Your task to perform on an android device: turn off airplane mode Image 0: 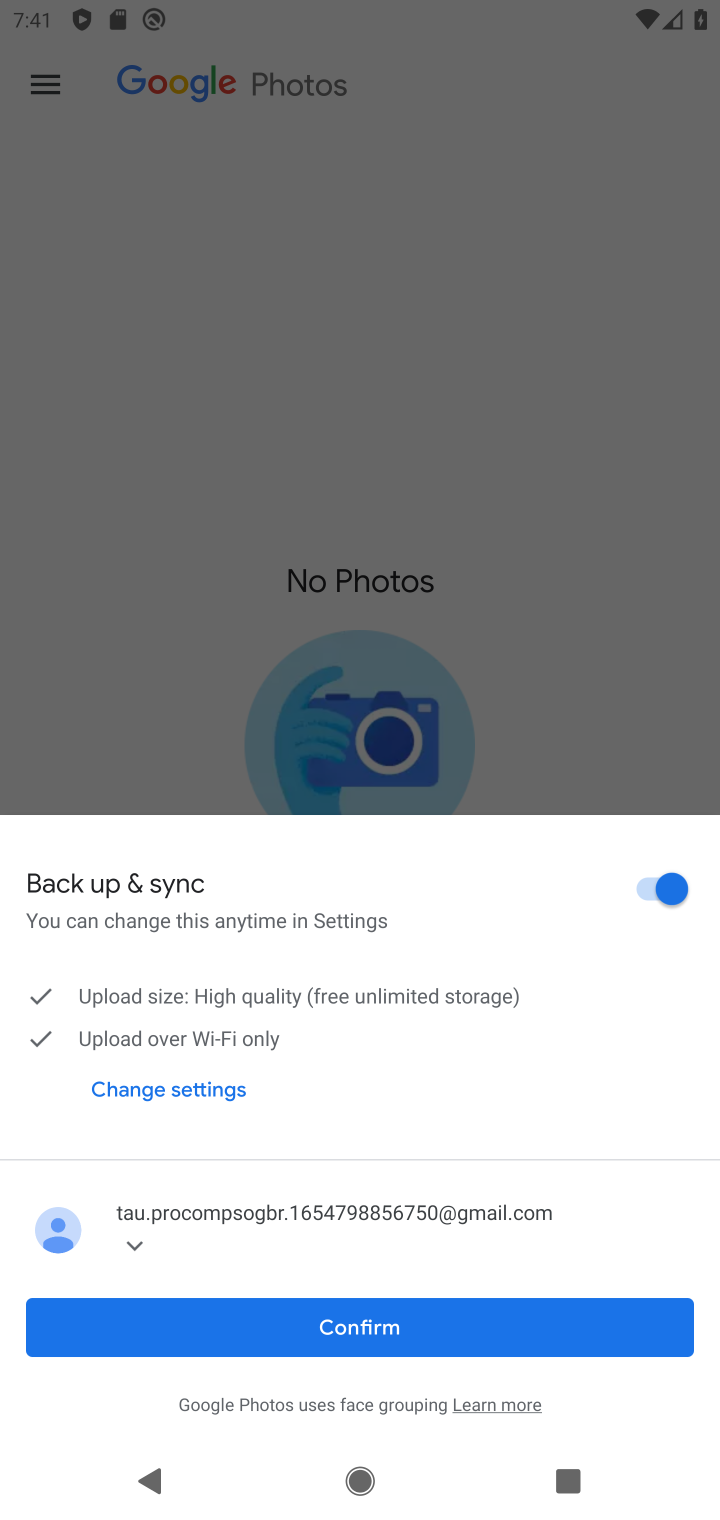
Step 0: press home button
Your task to perform on an android device: turn off airplane mode Image 1: 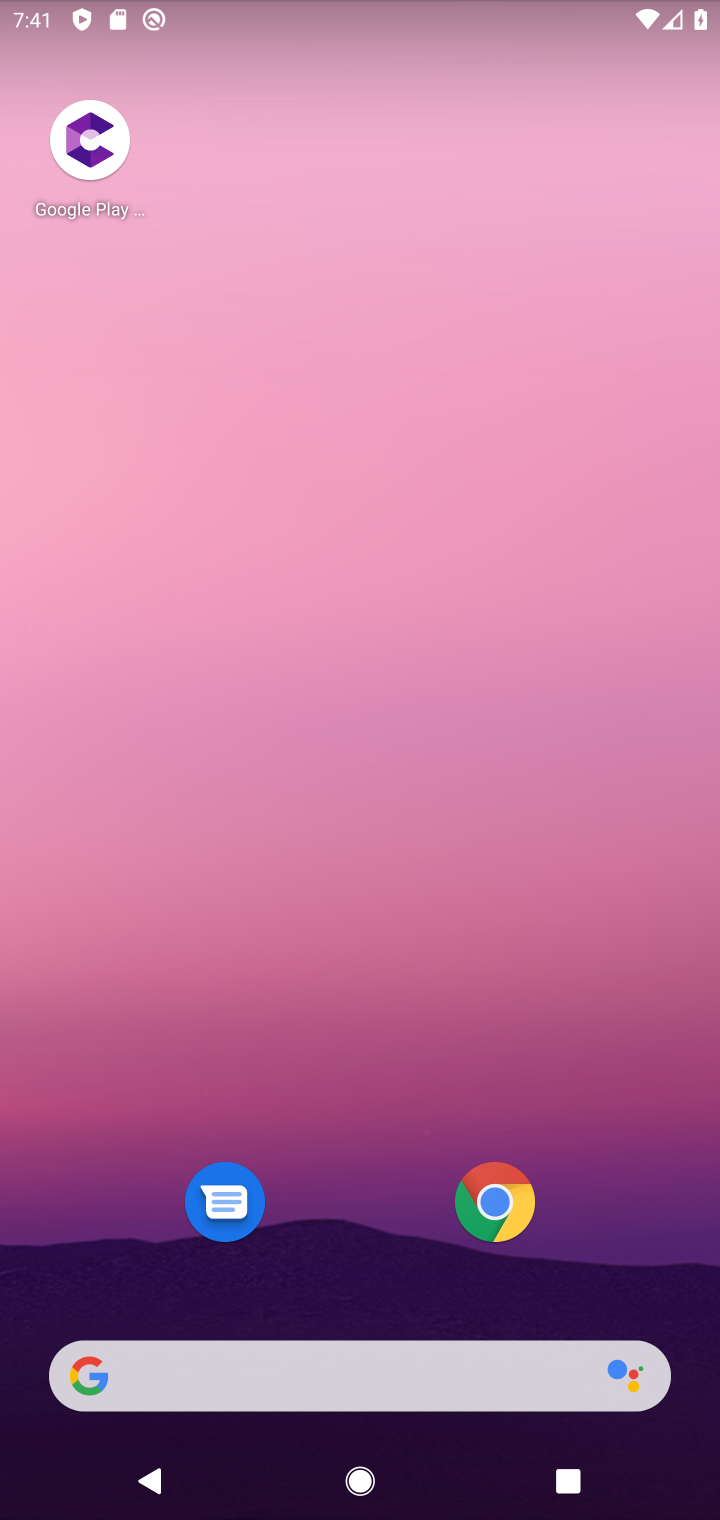
Step 1: drag from (320, 1396) to (453, 248)
Your task to perform on an android device: turn off airplane mode Image 2: 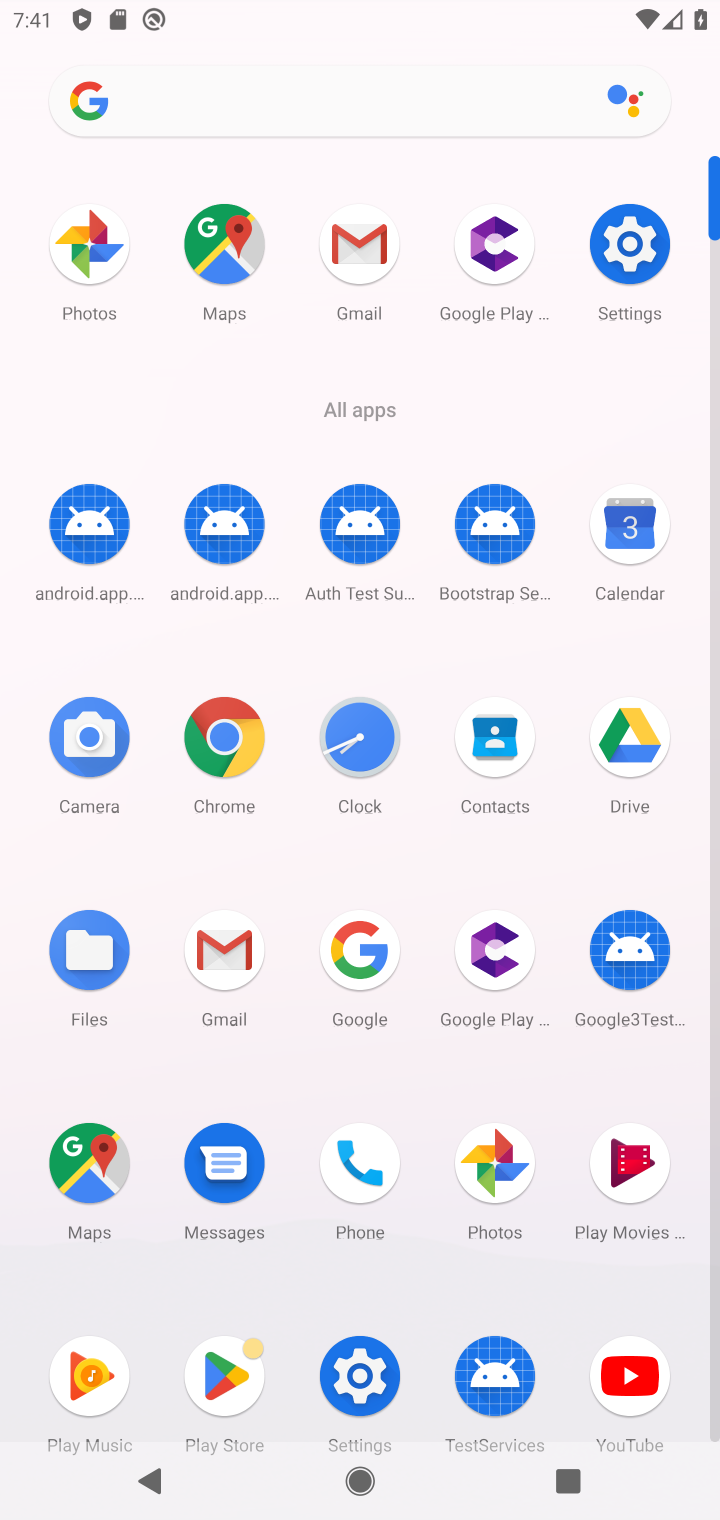
Step 2: click (626, 242)
Your task to perform on an android device: turn off airplane mode Image 3: 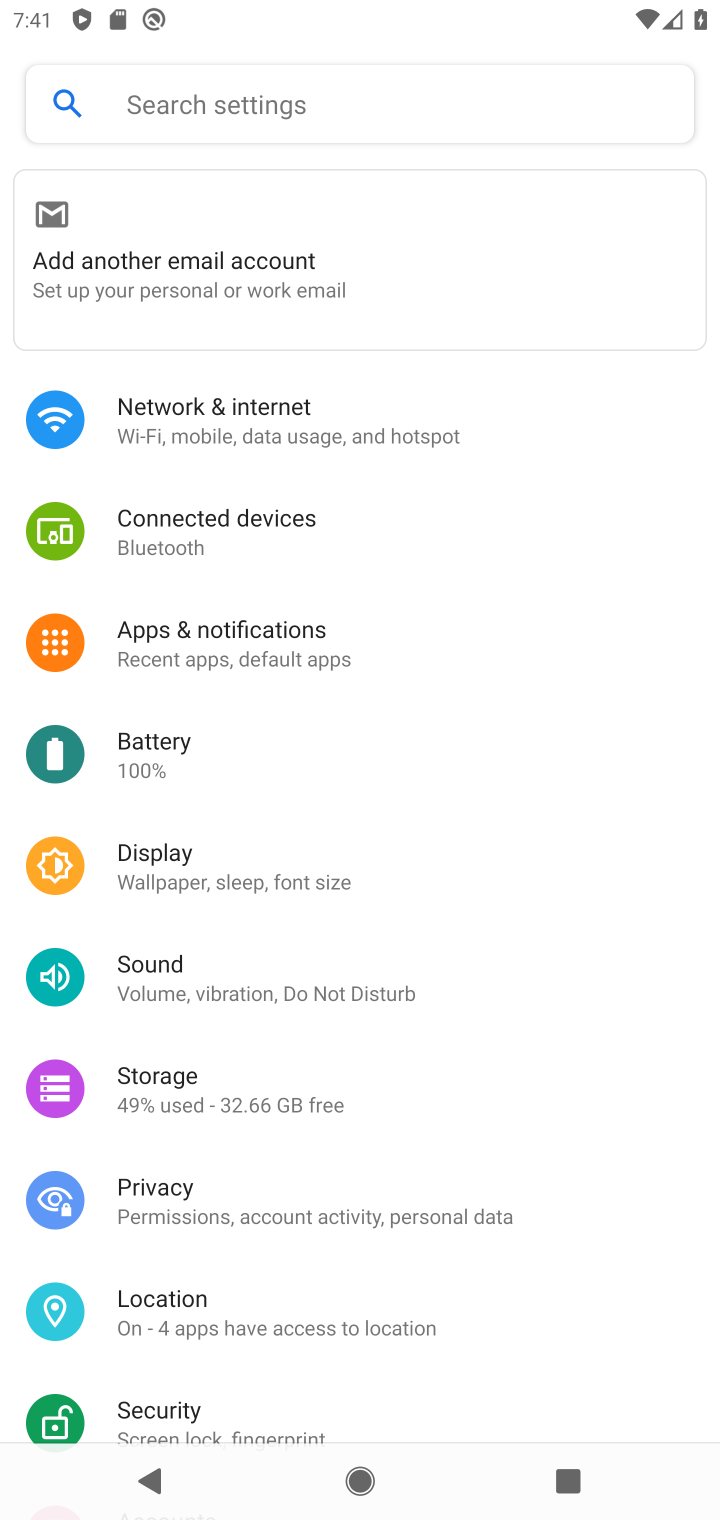
Step 3: click (286, 424)
Your task to perform on an android device: turn off airplane mode Image 4: 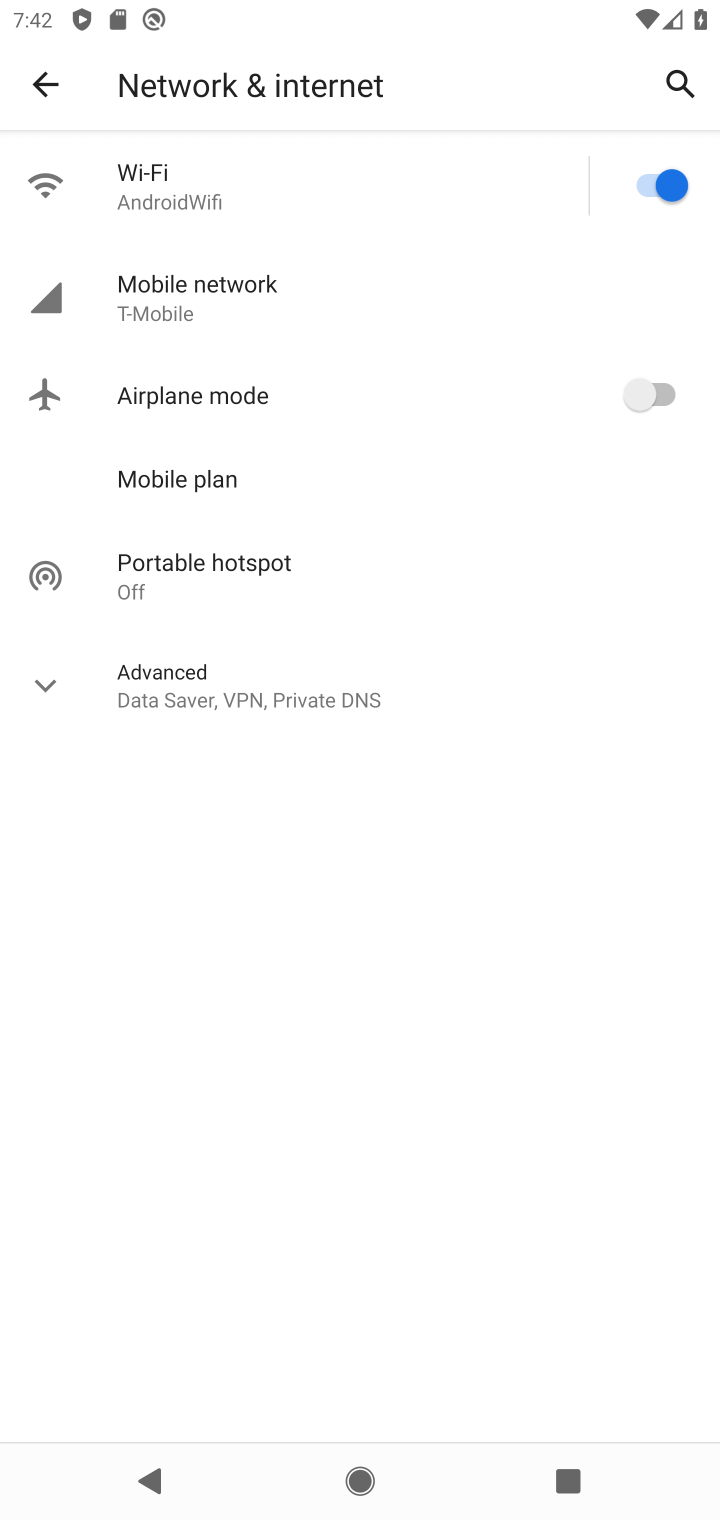
Step 4: task complete